Your task to perform on an android device: see sites visited before in the chrome app Image 0: 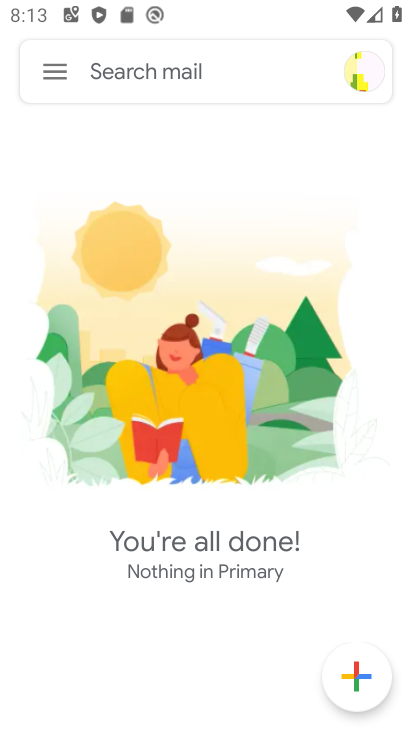
Step 0: press home button
Your task to perform on an android device: see sites visited before in the chrome app Image 1: 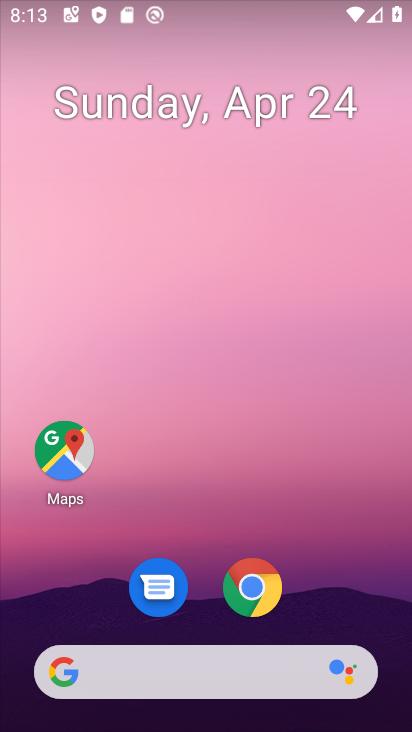
Step 1: click (264, 608)
Your task to perform on an android device: see sites visited before in the chrome app Image 2: 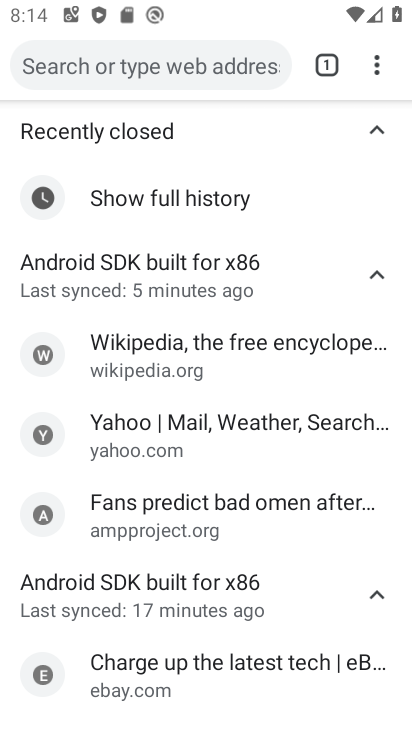
Step 2: click (383, 84)
Your task to perform on an android device: see sites visited before in the chrome app Image 3: 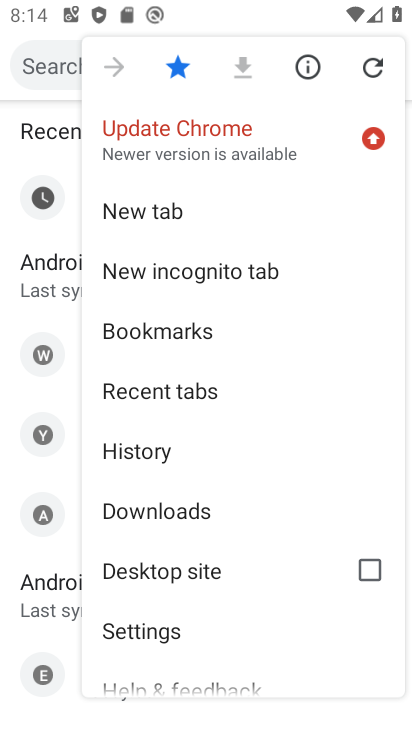
Step 3: click (189, 453)
Your task to perform on an android device: see sites visited before in the chrome app Image 4: 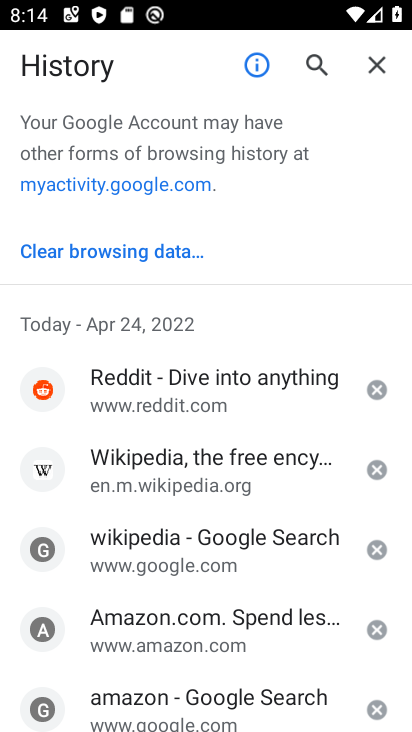
Step 4: task complete